Your task to perform on an android device: Do I have any events this weekend? Image 0: 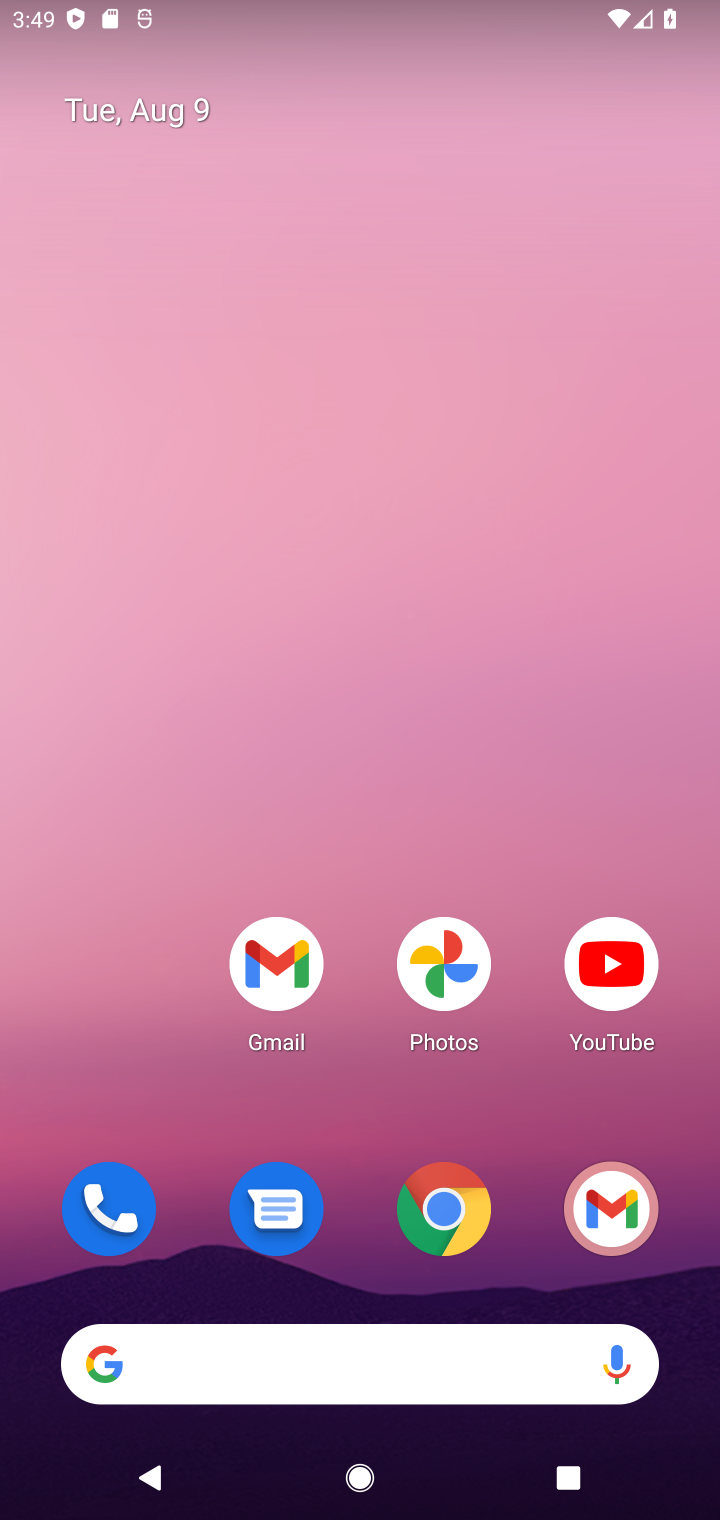
Step 0: drag from (375, 1104) to (297, 87)
Your task to perform on an android device: Do I have any events this weekend? Image 1: 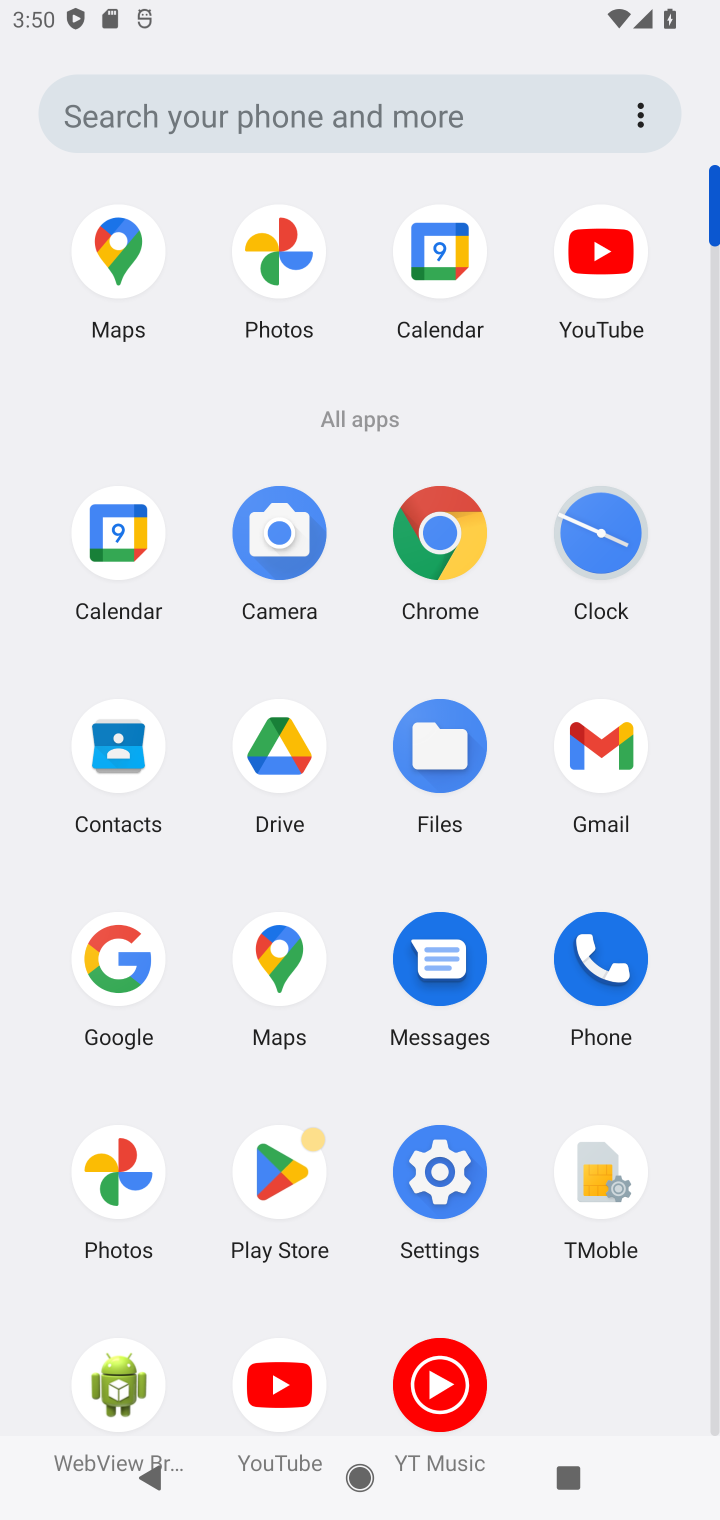
Step 1: click (117, 532)
Your task to perform on an android device: Do I have any events this weekend? Image 2: 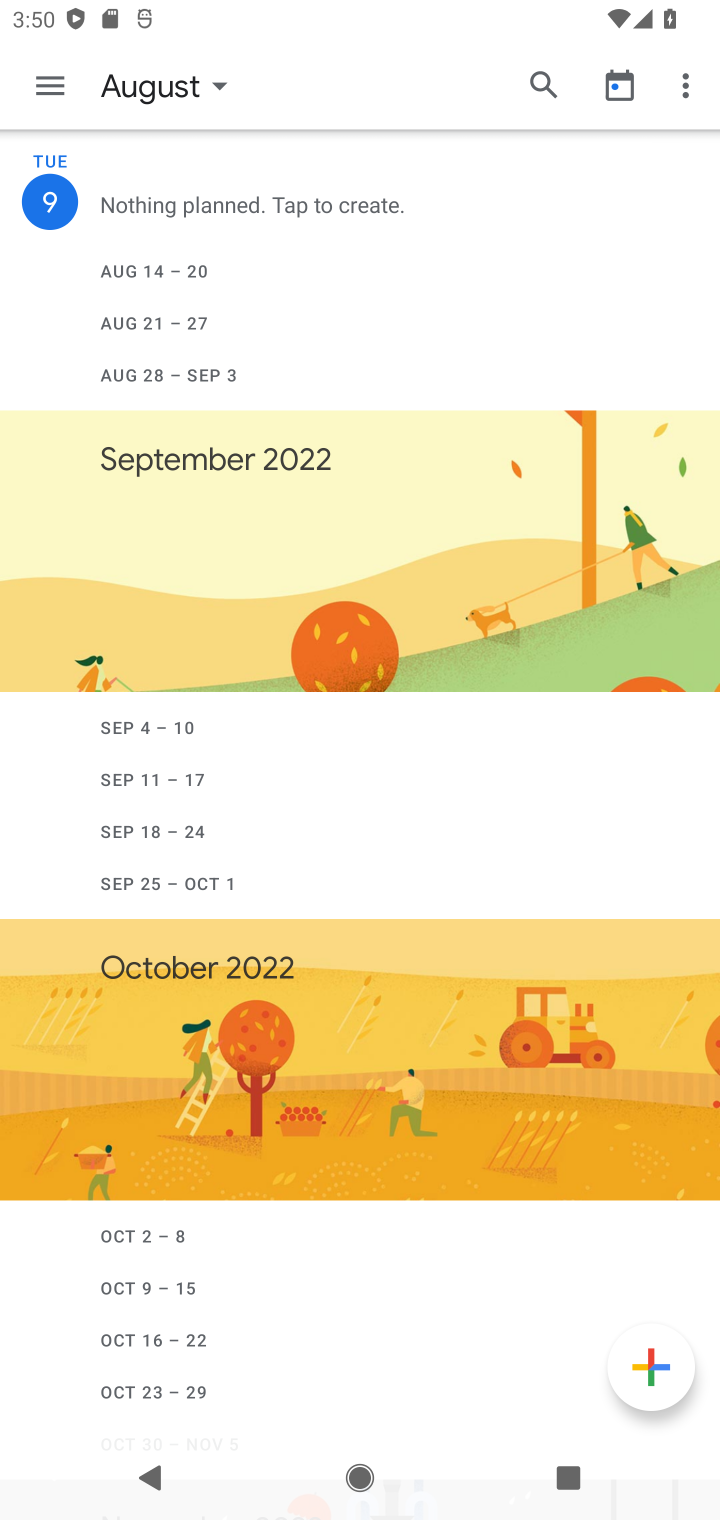
Step 2: click (48, 75)
Your task to perform on an android device: Do I have any events this weekend? Image 3: 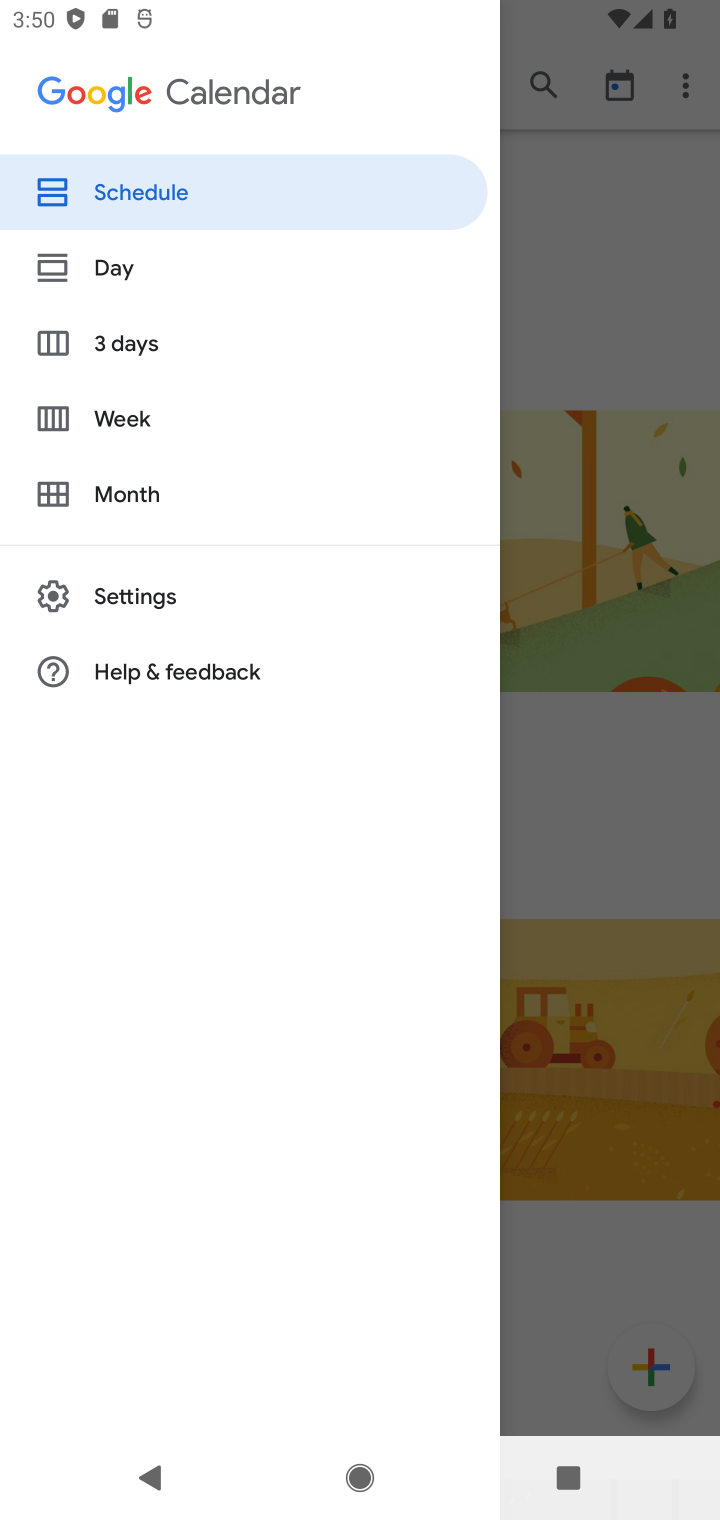
Step 3: click (122, 418)
Your task to perform on an android device: Do I have any events this weekend? Image 4: 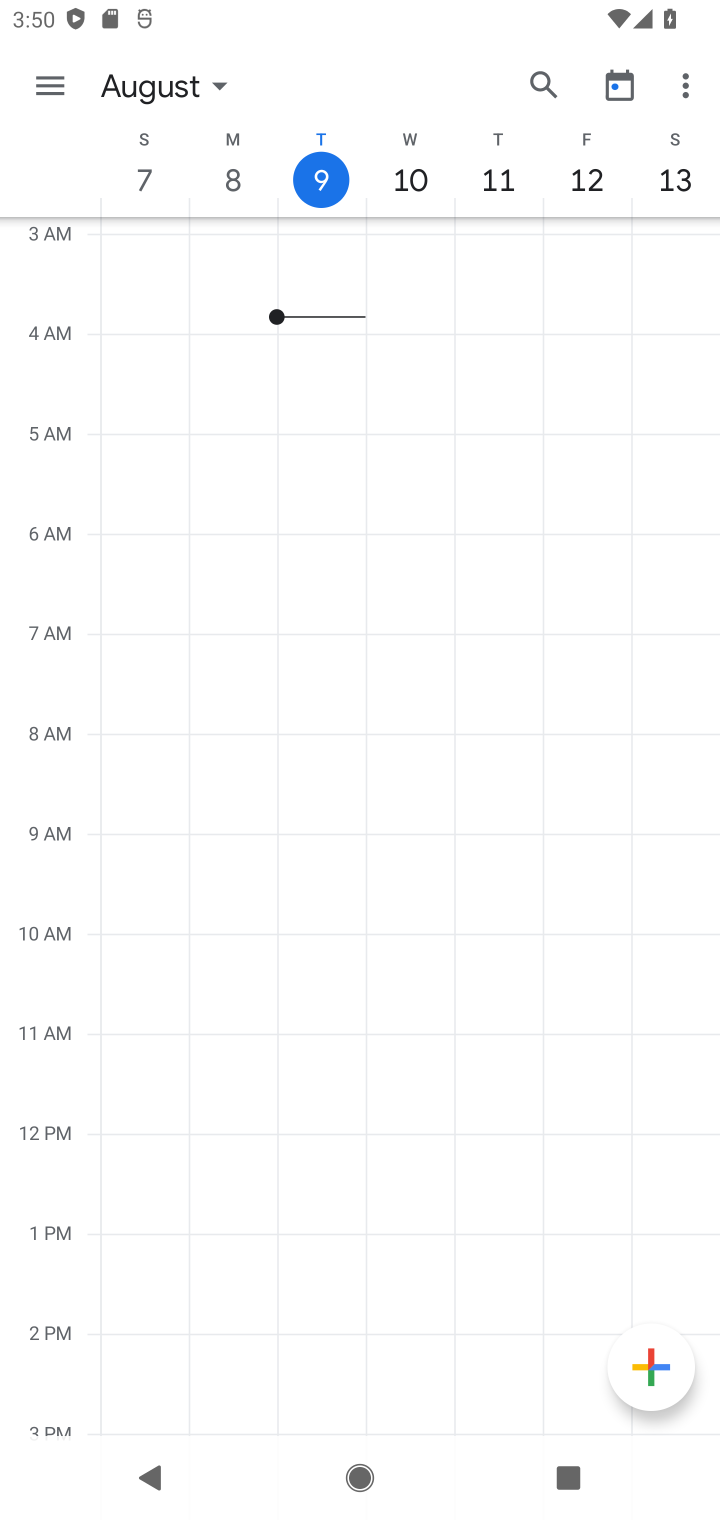
Step 4: task complete